Your task to perform on an android device: Open Google Chrome and click the shortcut for Amazon.com Image 0: 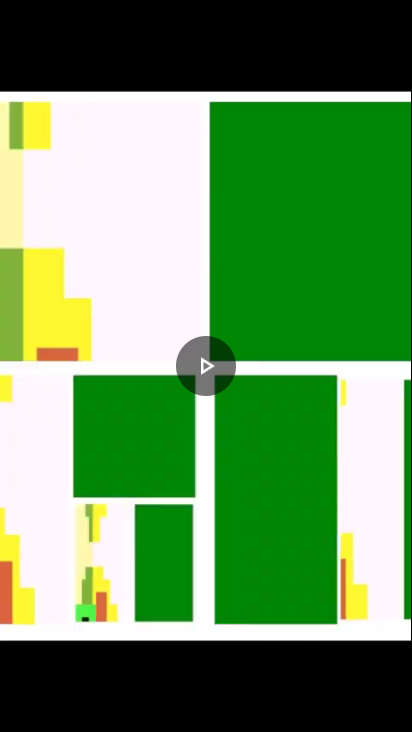
Step 0: press home button
Your task to perform on an android device: Open Google Chrome and click the shortcut for Amazon.com Image 1: 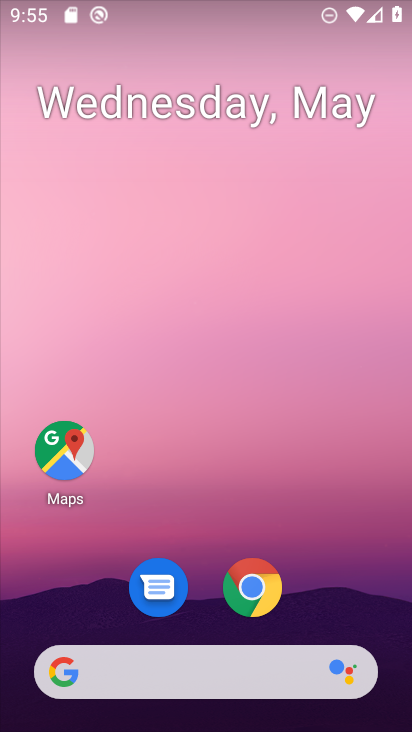
Step 1: click (253, 590)
Your task to perform on an android device: Open Google Chrome and click the shortcut for Amazon.com Image 2: 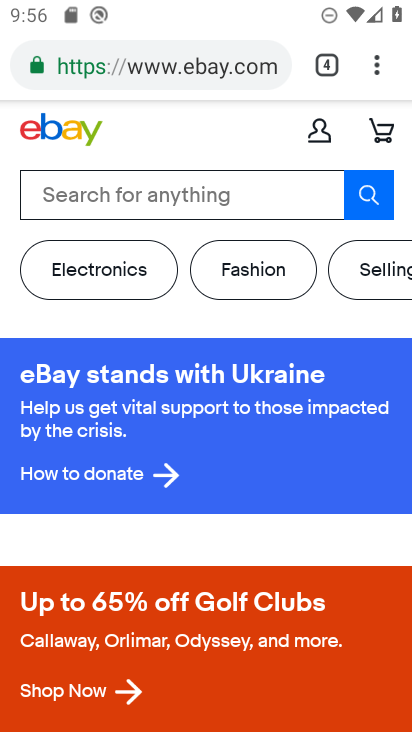
Step 2: click (378, 73)
Your task to perform on an android device: Open Google Chrome and click the shortcut for Amazon.com Image 3: 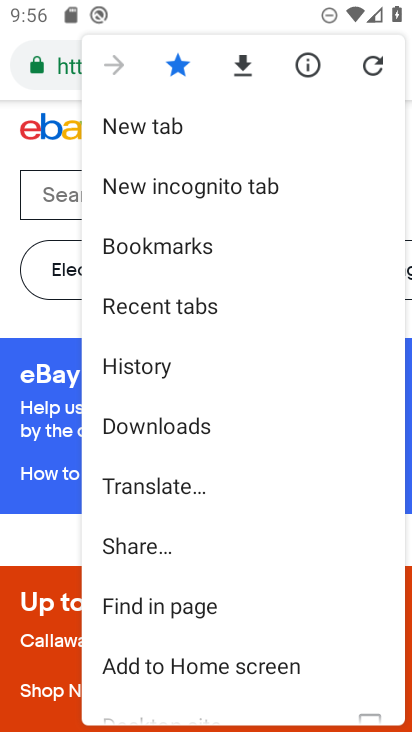
Step 3: click (142, 130)
Your task to perform on an android device: Open Google Chrome and click the shortcut for Amazon.com Image 4: 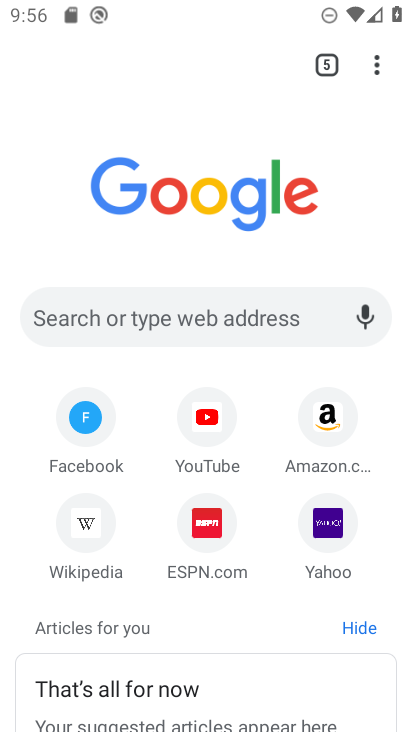
Step 4: click (325, 410)
Your task to perform on an android device: Open Google Chrome and click the shortcut for Amazon.com Image 5: 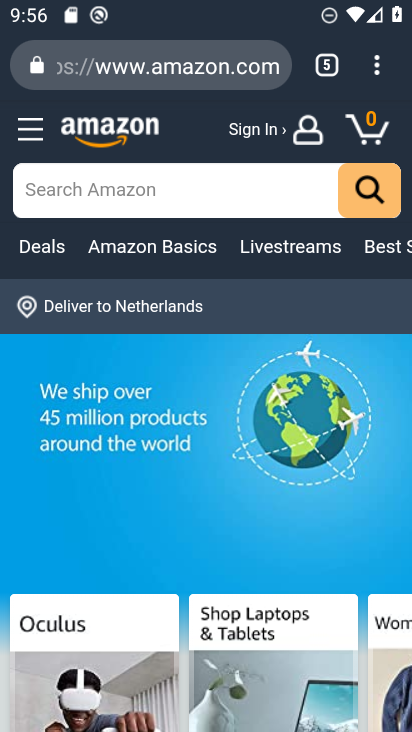
Step 5: task complete